Your task to perform on an android device: change your default location settings in chrome Image 0: 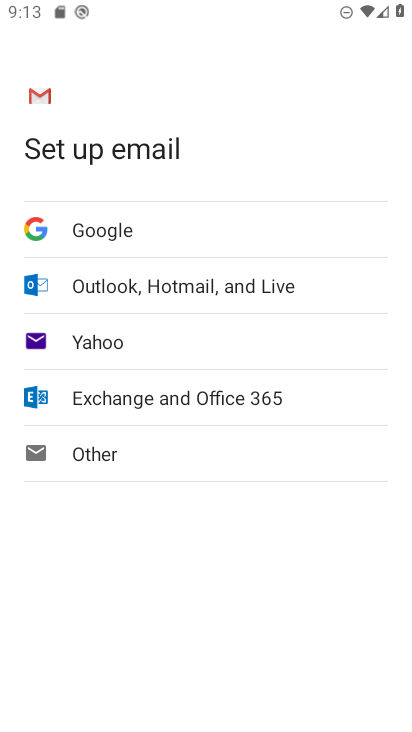
Step 0: press home button
Your task to perform on an android device: change your default location settings in chrome Image 1: 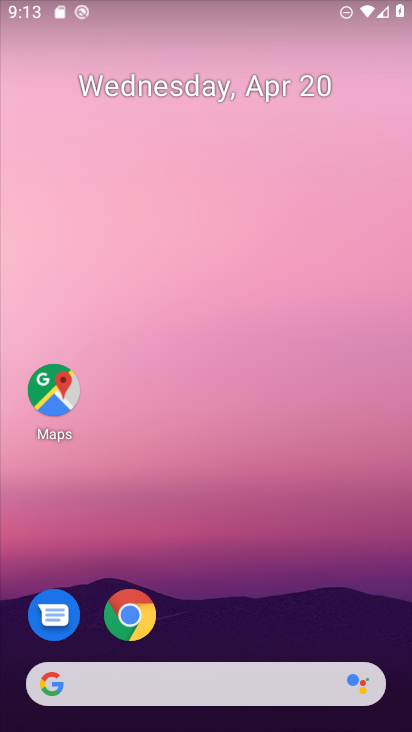
Step 1: click (132, 618)
Your task to perform on an android device: change your default location settings in chrome Image 2: 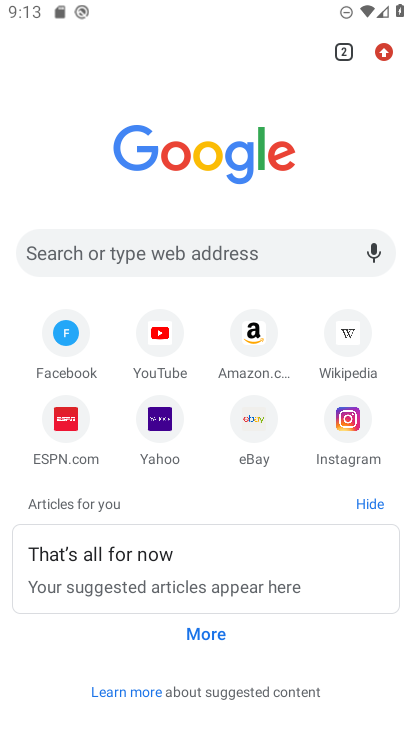
Step 2: click (384, 50)
Your task to perform on an android device: change your default location settings in chrome Image 3: 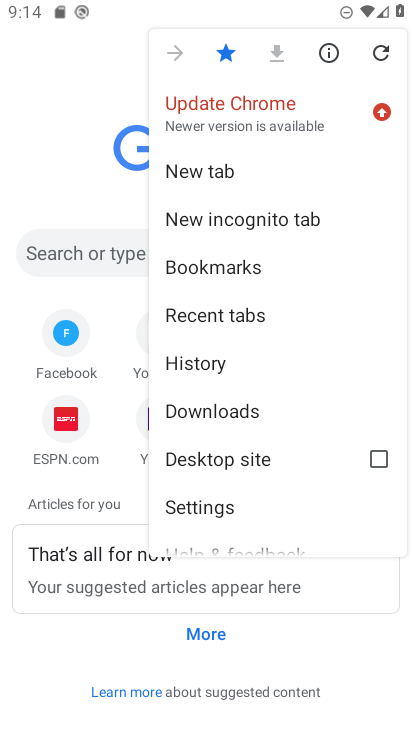
Step 3: click (205, 509)
Your task to perform on an android device: change your default location settings in chrome Image 4: 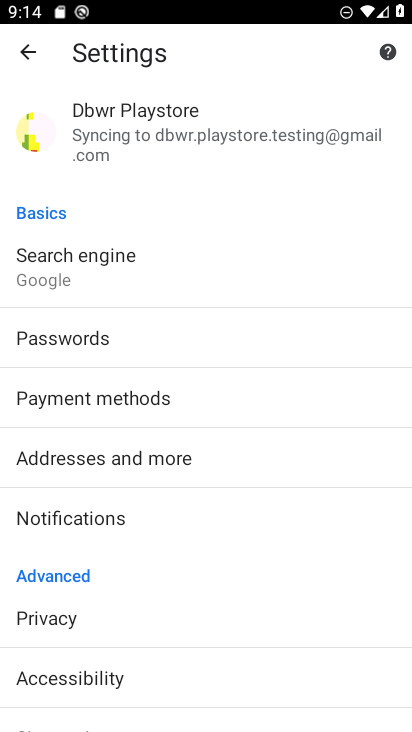
Step 4: drag from (130, 601) to (195, 487)
Your task to perform on an android device: change your default location settings in chrome Image 5: 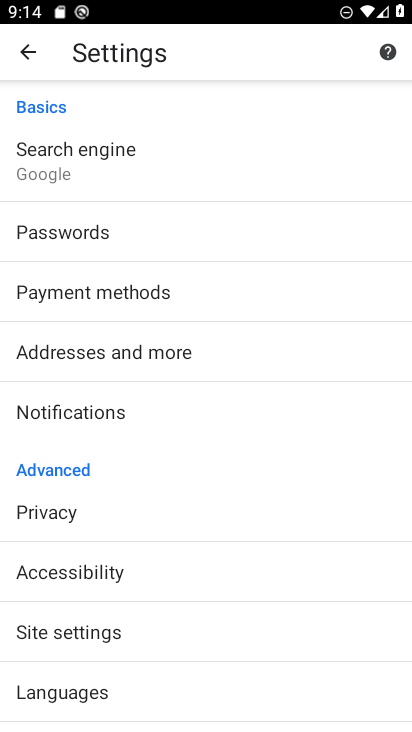
Step 5: drag from (143, 619) to (178, 531)
Your task to perform on an android device: change your default location settings in chrome Image 6: 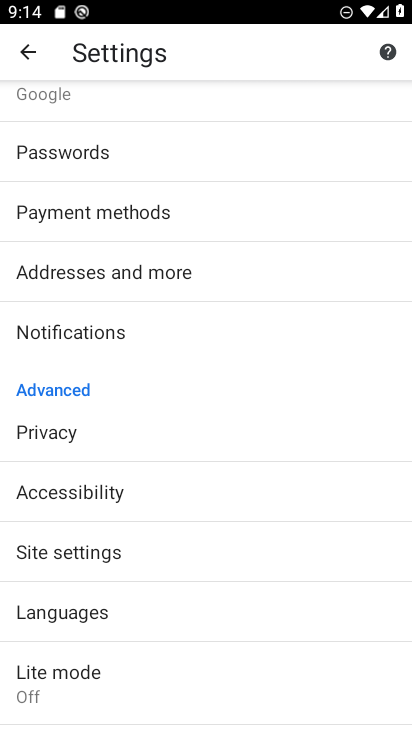
Step 6: click (108, 554)
Your task to perform on an android device: change your default location settings in chrome Image 7: 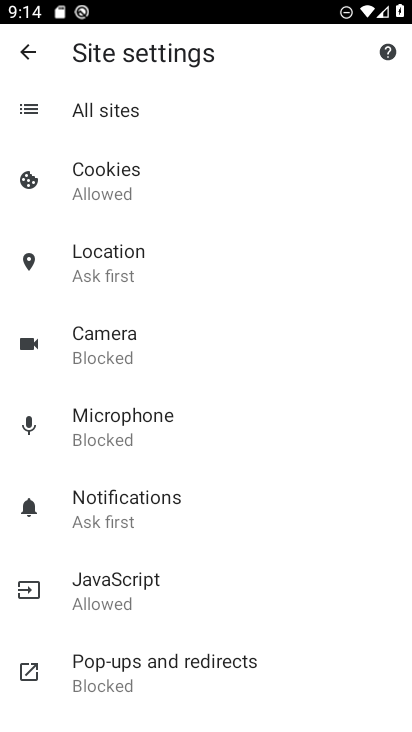
Step 7: click (111, 259)
Your task to perform on an android device: change your default location settings in chrome Image 8: 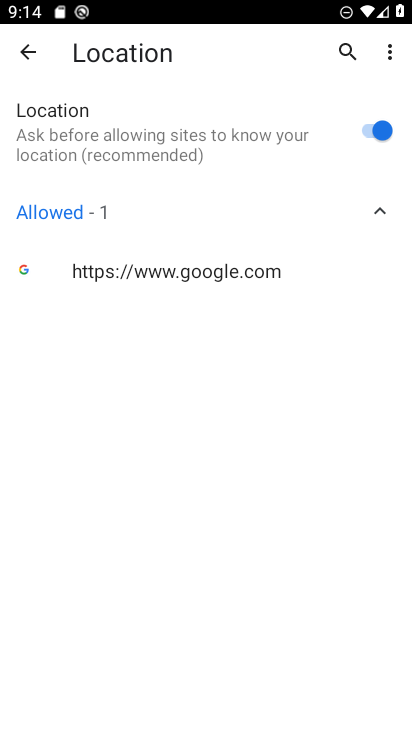
Step 8: click (371, 131)
Your task to perform on an android device: change your default location settings in chrome Image 9: 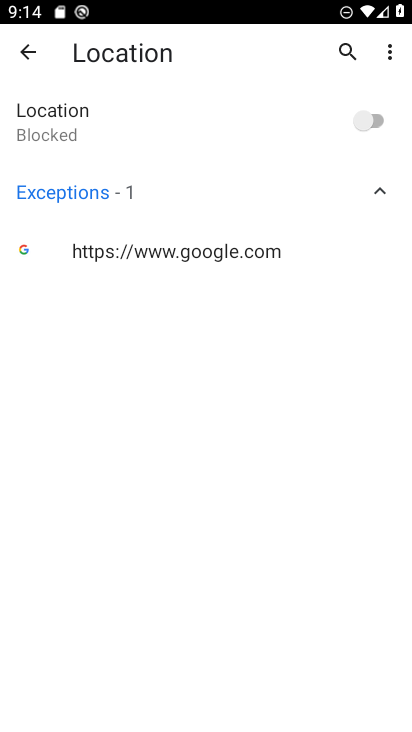
Step 9: task complete